Your task to perform on an android device: Go to Android settings Image 0: 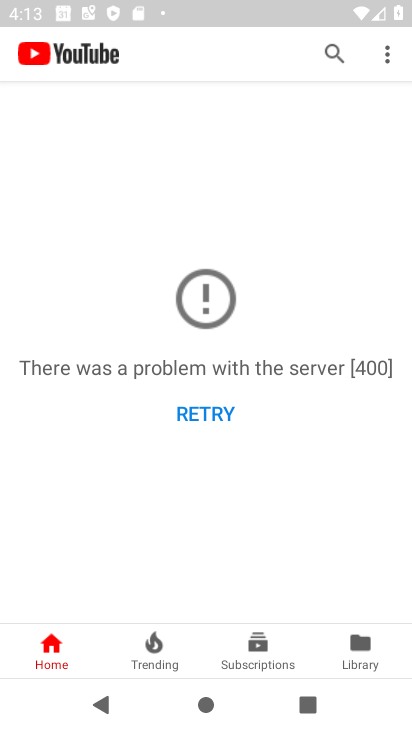
Step 0: press home button
Your task to perform on an android device: Go to Android settings Image 1: 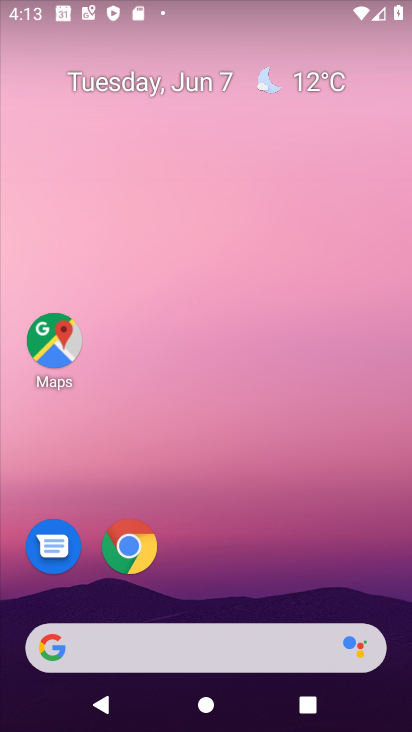
Step 1: drag from (199, 602) to (246, 2)
Your task to perform on an android device: Go to Android settings Image 2: 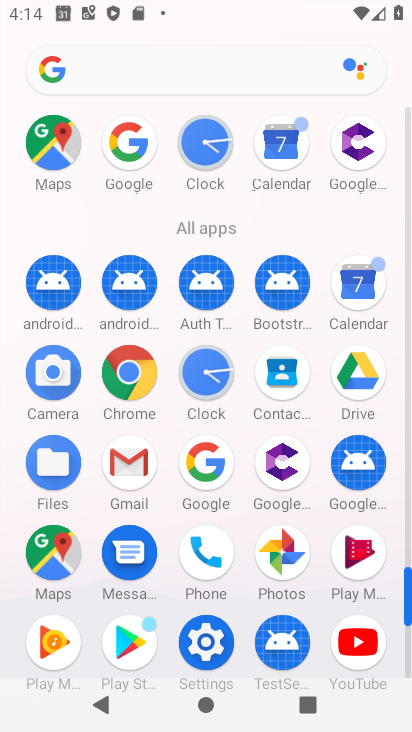
Step 2: click (218, 639)
Your task to perform on an android device: Go to Android settings Image 3: 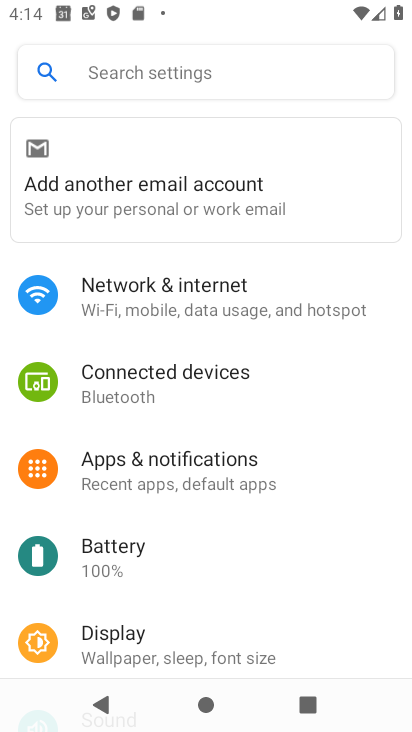
Step 3: drag from (163, 650) to (192, 59)
Your task to perform on an android device: Go to Android settings Image 4: 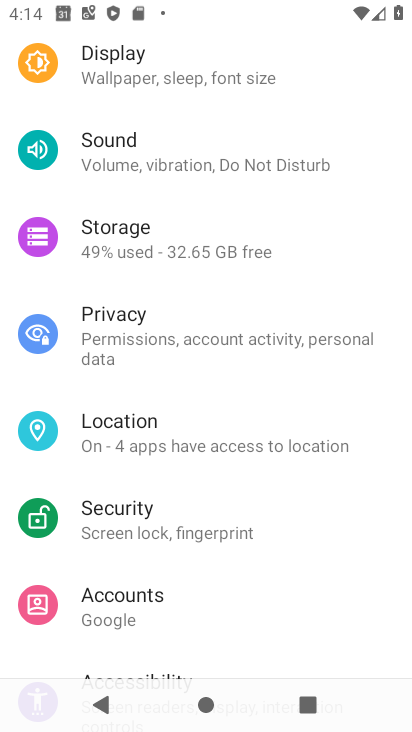
Step 4: drag from (185, 579) to (196, 235)
Your task to perform on an android device: Go to Android settings Image 5: 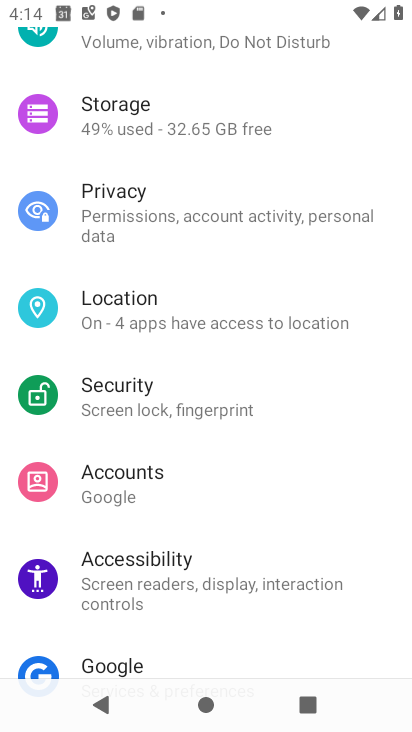
Step 5: drag from (162, 635) to (163, 241)
Your task to perform on an android device: Go to Android settings Image 6: 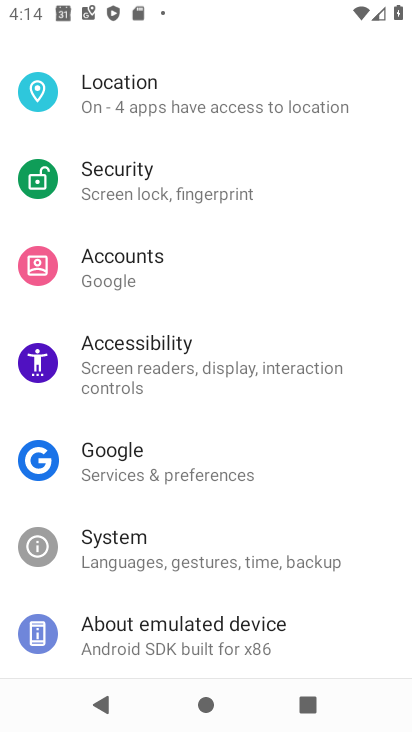
Step 6: click (141, 633)
Your task to perform on an android device: Go to Android settings Image 7: 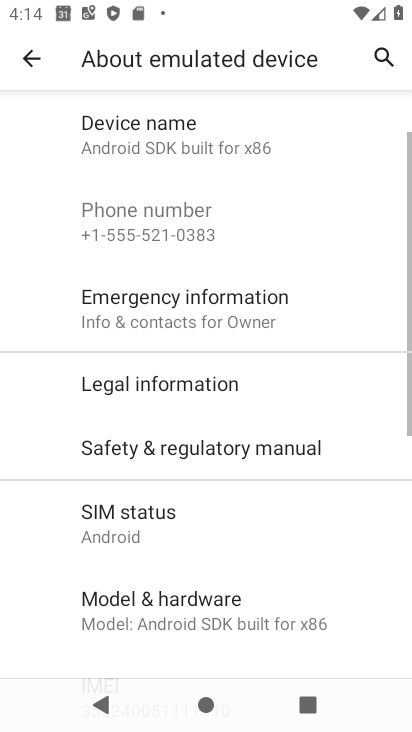
Step 7: drag from (198, 637) to (241, 262)
Your task to perform on an android device: Go to Android settings Image 8: 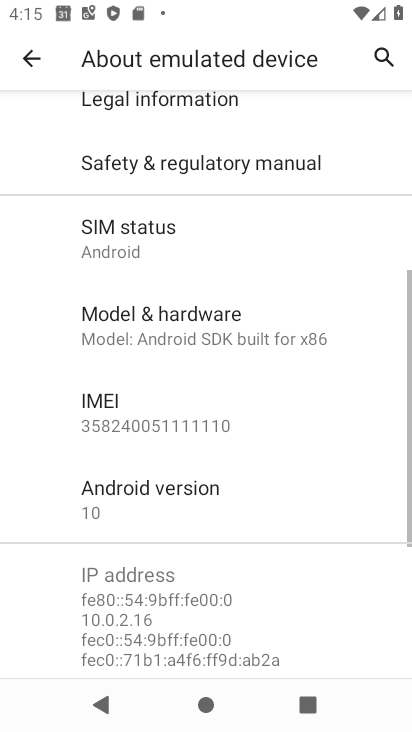
Step 8: drag from (114, 533) to (170, 283)
Your task to perform on an android device: Go to Android settings Image 9: 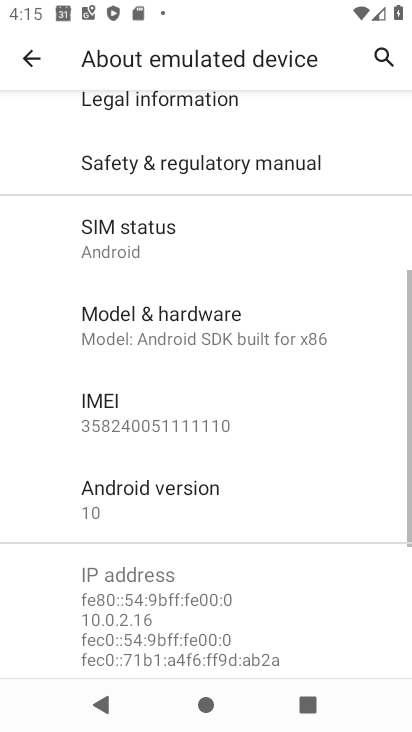
Step 9: drag from (158, 543) to (200, 353)
Your task to perform on an android device: Go to Android settings Image 10: 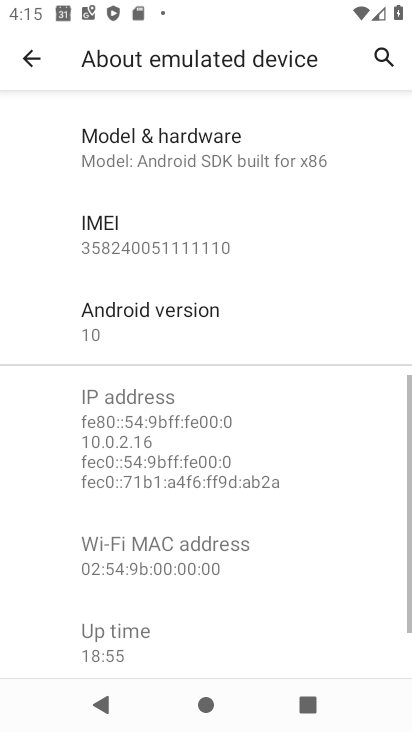
Step 10: drag from (174, 502) to (192, 254)
Your task to perform on an android device: Go to Android settings Image 11: 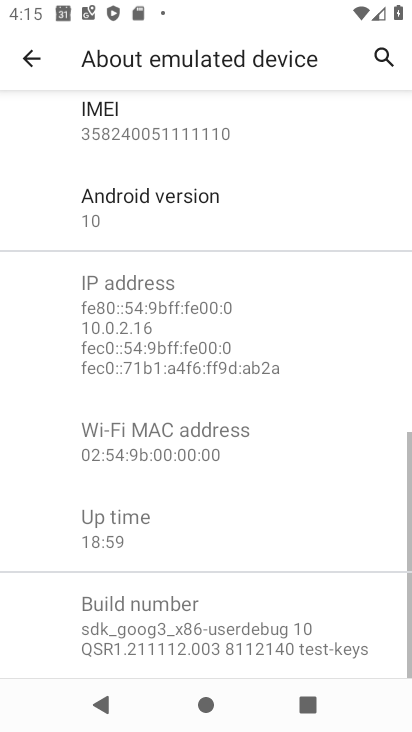
Step 11: drag from (242, 511) to (242, 196)
Your task to perform on an android device: Go to Android settings Image 12: 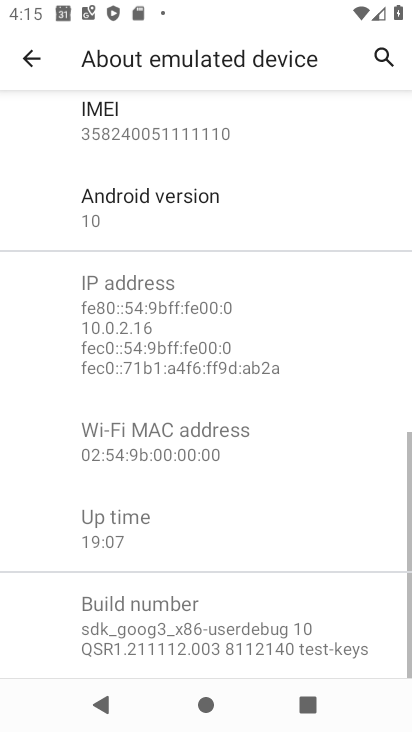
Step 12: drag from (189, 215) to (187, 458)
Your task to perform on an android device: Go to Android settings Image 13: 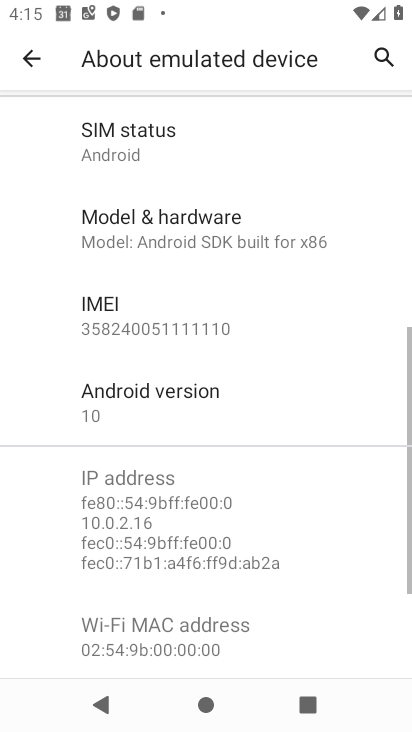
Step 13: click (188, 424)
Your task to perform on an android device: Go to Android settings Image 14: 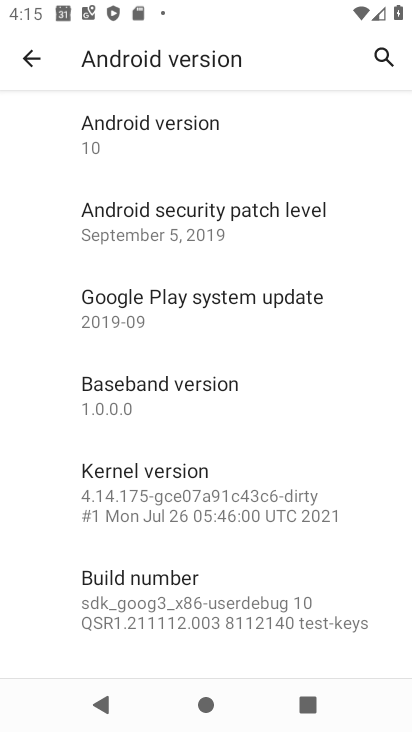
Step 14: task complete